Your task to perform on an android device: all mails in gmail Image 0: 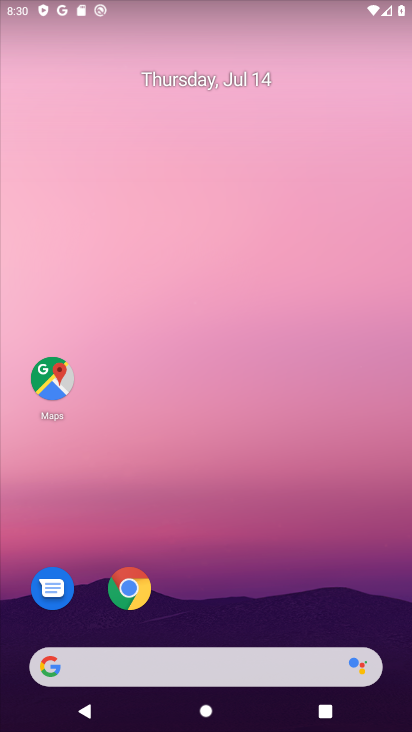
Step 0: click (258, 167)
Your task to perform on an android device: all mails in gmail Image 1: 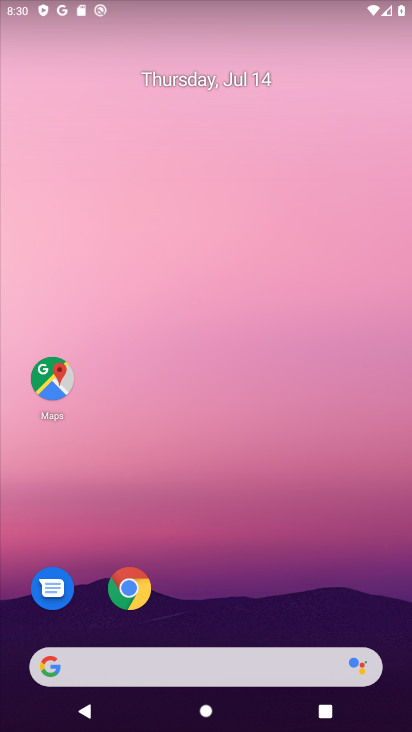
Step 1: drag from (264, 554) to (196, 127)
Your task to perform on an android device: all mails in gmail Image 2: 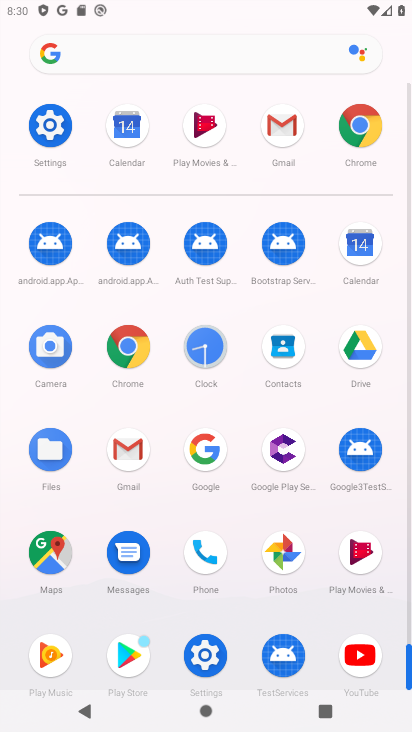
Step 2: click (199, 303)
Your task to perform on an android device: all mails in gmail Image 3: 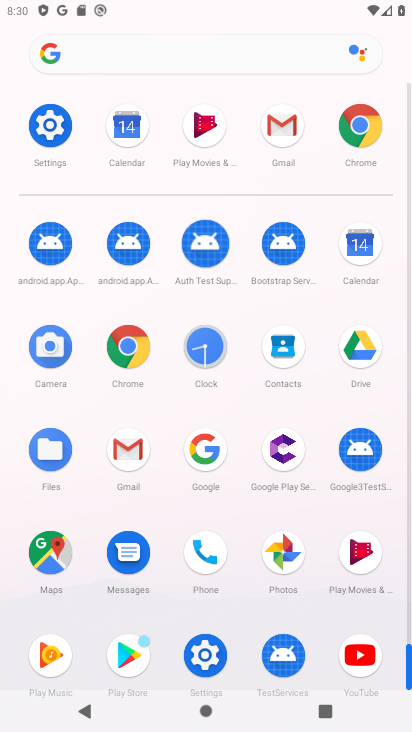
Step 3: click (286, 127)
Your task to perform on an android device: all mails in gmail Image 4: 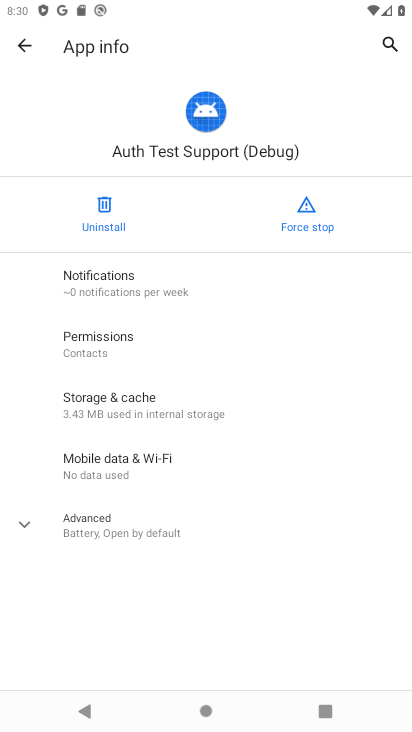
Step 4: click (33, 36)
Your task to perform on an android device: all mails in gmail Image 5: 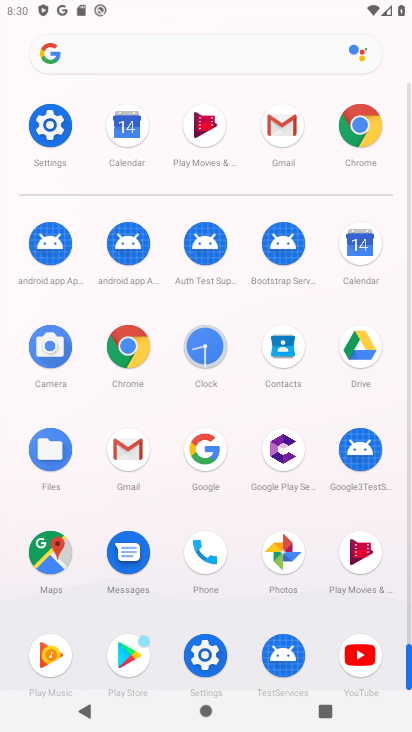
Step 5: click (274, 124)
Your task to perform on an android device: all mails in gmail Image 6: 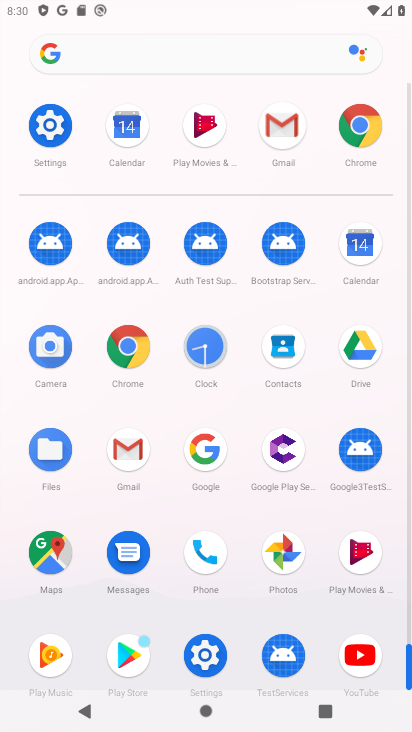
Step 6: click (276, 125)
Your task to perform on an android device: all mails in gmail Image 7: 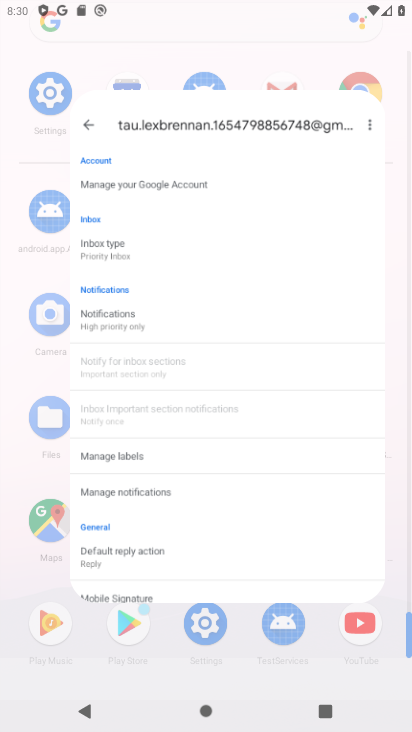
Step 7: click (276, 125)
Your task to perform on an android device: all mails in gmail Image 8: 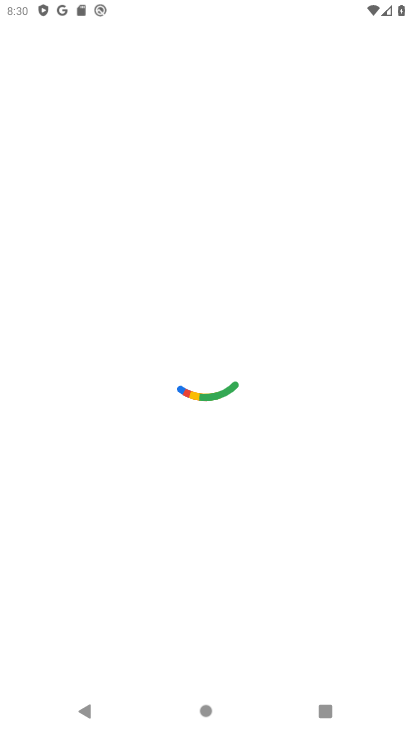
Step 8: task complete